Your task to perform on an android device: What's on my calendar today? Image 0: 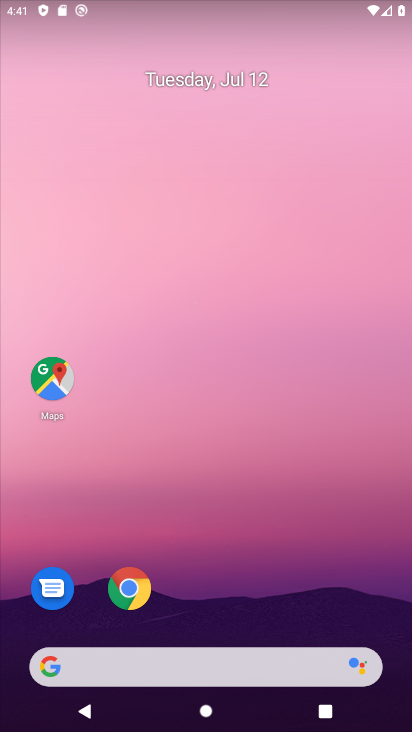
Step 0: drag from (235, 611) to (126, 50)
Your task to perform on an android device: What's on my calendar today? Image 1: 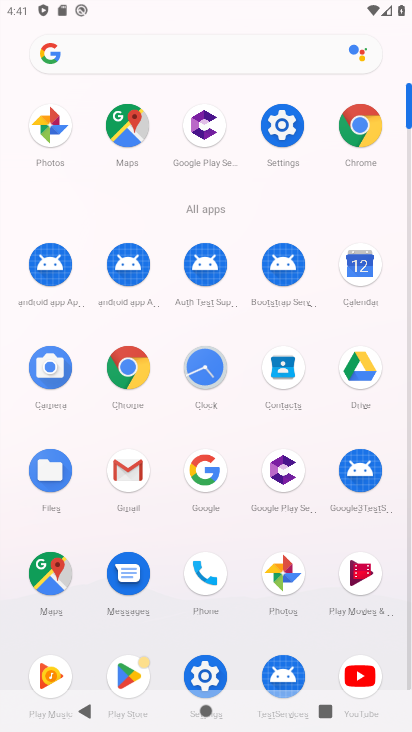
Step 1: click (360, 268)
Your task to perform on an android device: What's on my calendar today? Image 2: 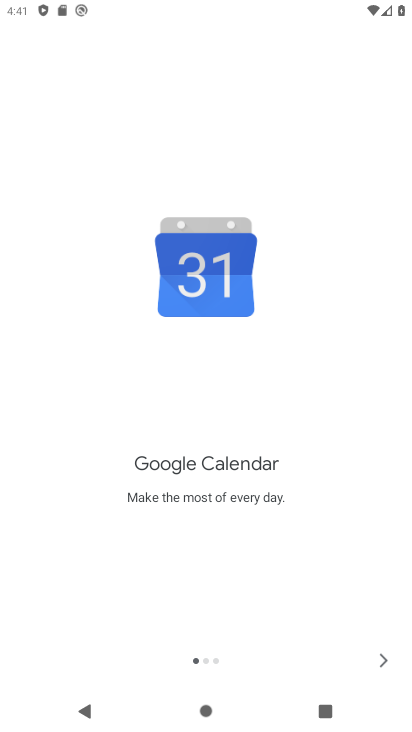
Step 2: click (385, 664)
Your task to perform on an android device: What's on my calendar today? Image 3: 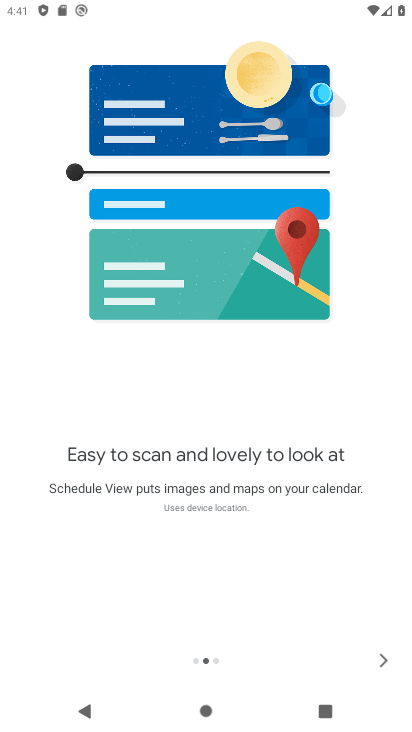
Step 3: click (385, 664)
Your task to perform on an android device: What's on my calendar today? Image 4: 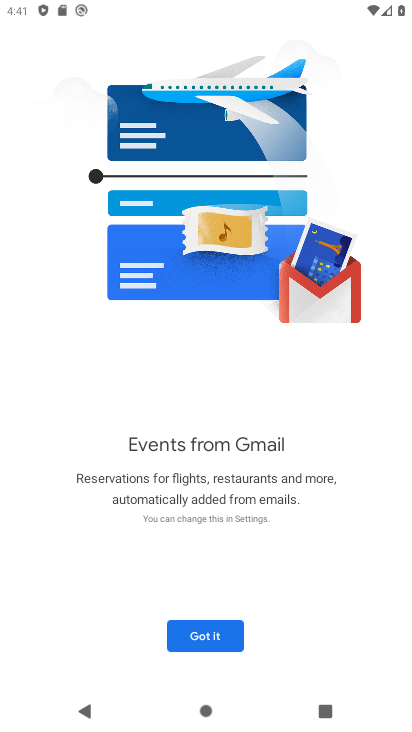
Step 4: click (226, 619)
Your task to perform on an android device: What's on my calendar today? Image 5: 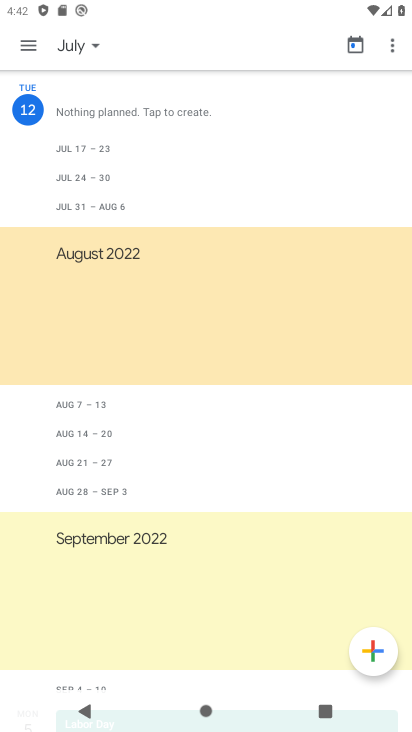
Step 5: task complete